Your task to perform on an android device: uninstall "Etsy: Buy & Sell Unique Items" Image 0: 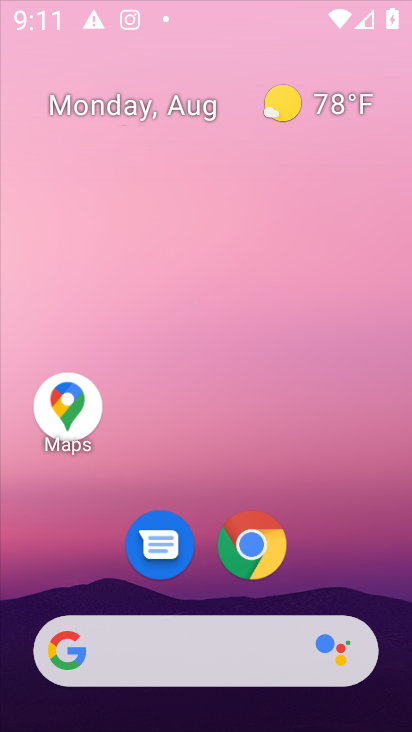
Step 0: press home button
Your task to perform on an android device: uninstall "Etsy: Buy & Sell Unique Items" Image 1: 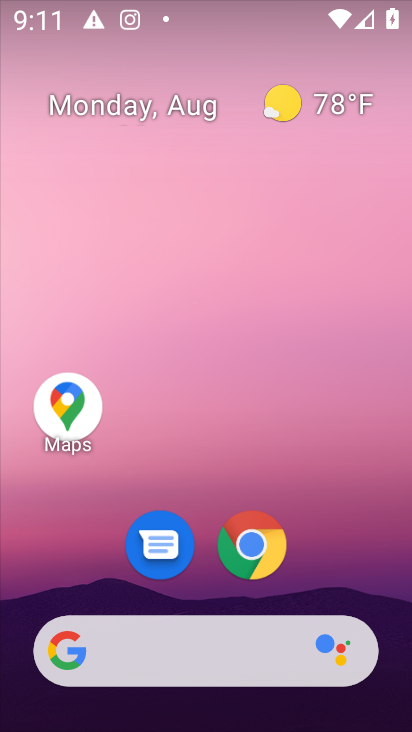
Step 1: drag from (363, 549) to (360, 130)
Your task to perform on an android device: uninstall "Etsy: Buy & Sell Unique Items" Image 2: 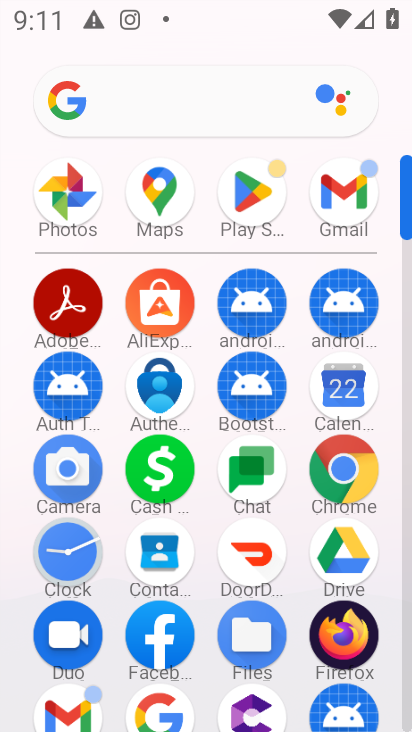
Step 2: click (250, 197)
Your task to perform on an android device: uninstall "Etsy: Buy & Sell Unique Items" Image 3: 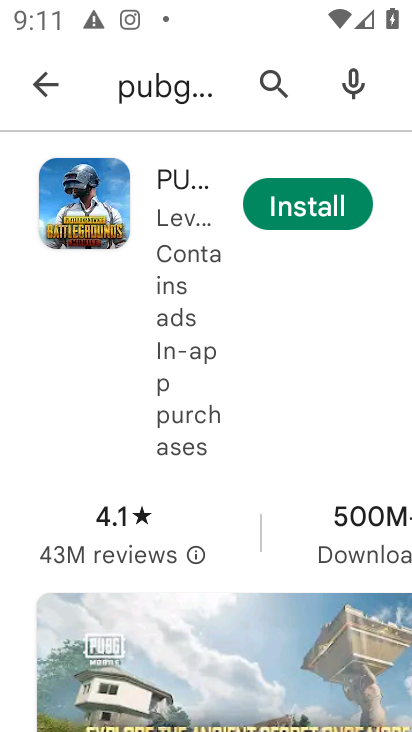
Step 3: press back button
Your task to perform on an android device: uninstall "Etsy: Buy & Sell Unique Items" Image 4: 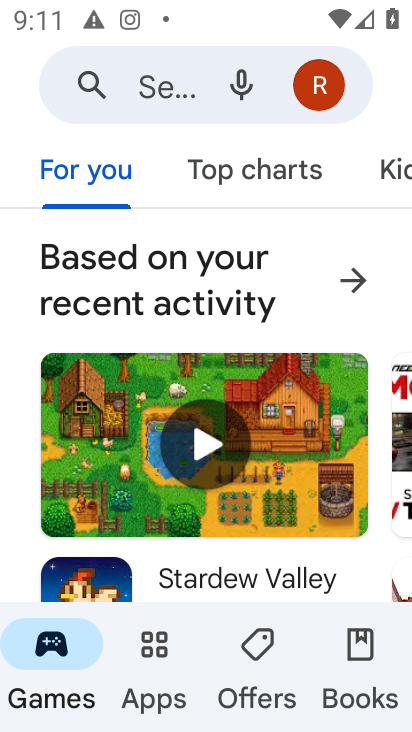
Step 4: click (139, 94)
Your task to perform on an android device: uninstall "Etsy: Buy & Sell Unique Items" Image 5: 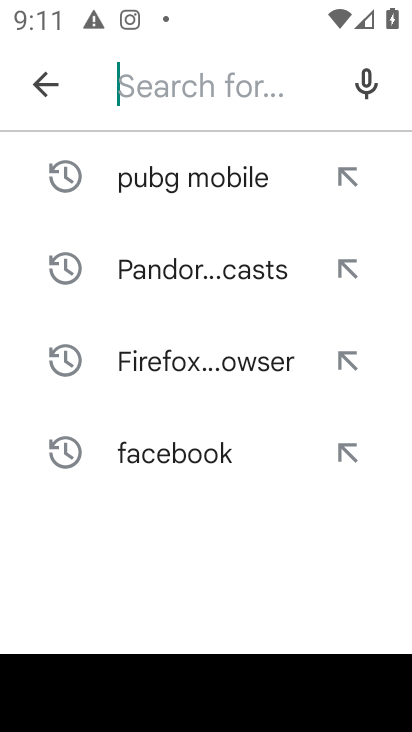
Step 5: press enter
Your task to perform on an android device: uninstall "Etsy: Buy & Sell Unique Items" Image 6: 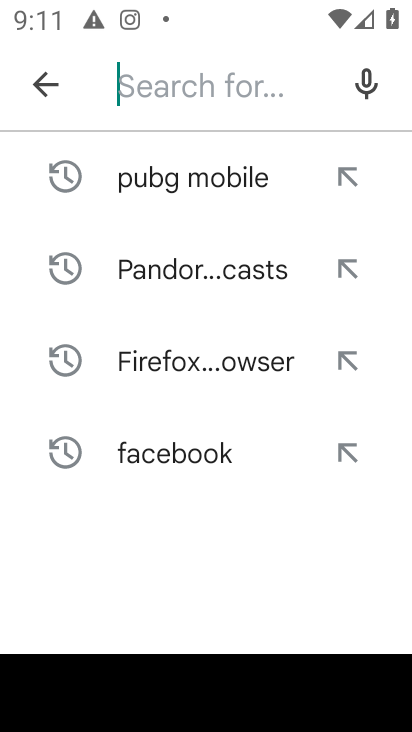
Step 6: type "Etsy: Buy & Sell Unique Items"
Your task to perform on an android device: uninstall "Etsy: Buy & Sell Unique Items" Image 7: 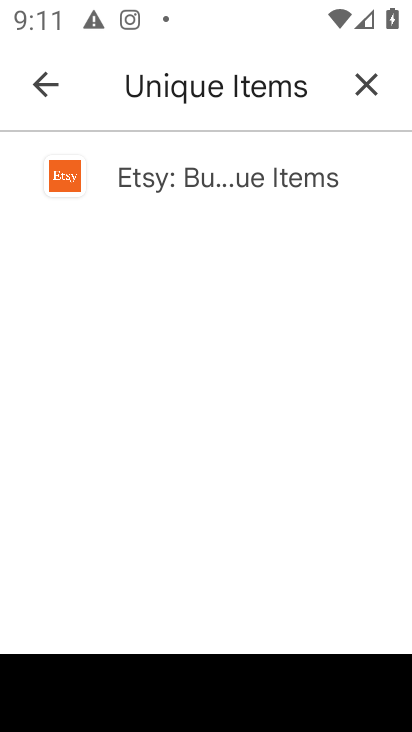
Step 7: click (239, 177)
Your task to perform on an android device: uninstall "Etsy: Buy & Sell Unique Items" Image 8: 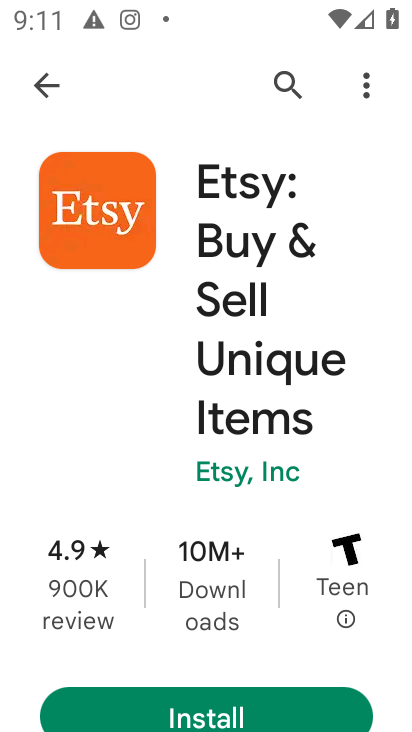
Step 8: task complete